Your task to perform on an android device: Show me recent news Image 0: 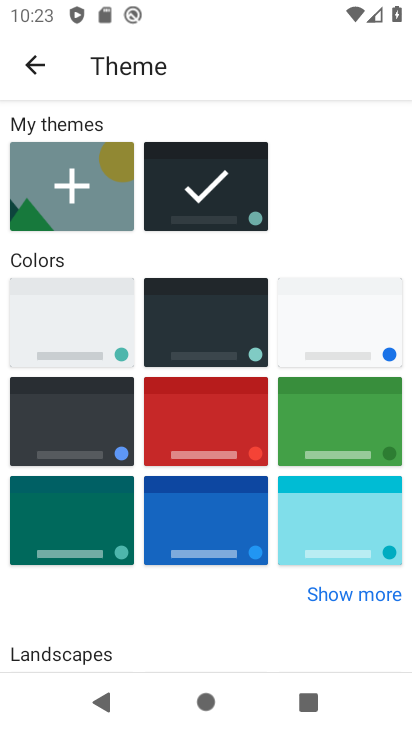
Step 0: press home button
Your task to perform on an android device: Show me recent news Image 1: 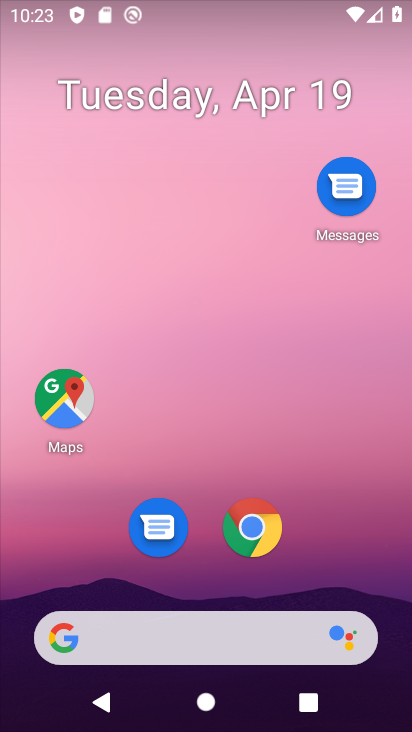
Step 1: task complete